Your task to perform on an android device: open app "Walmart Shopping & Grocery" Image 0: 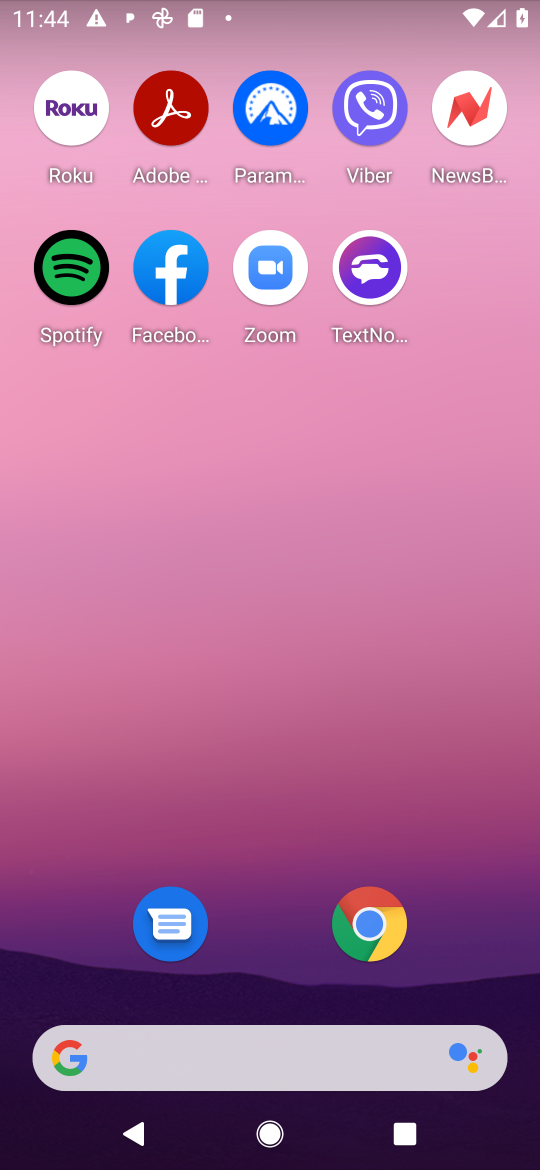
Step 0: press home button
Your task to perform on an android device: open app "Walmart Shopping & Grocery" Image 1: 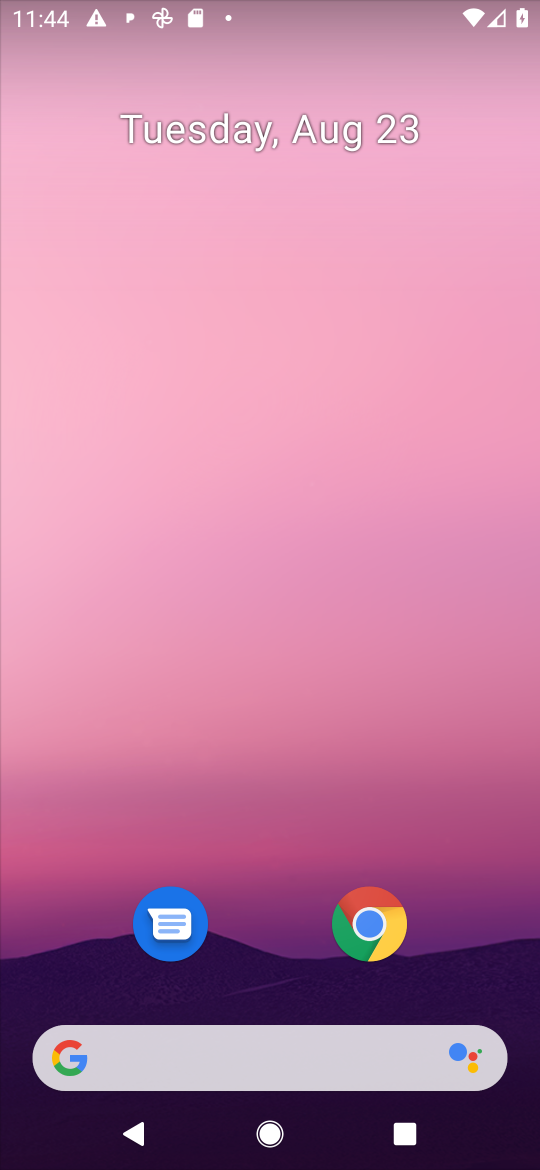
Step 1: drag from (473, 983) to (523, 564)
Your task to perform on an android device: open app "Walmart Shopping & Grocery" Image 2: 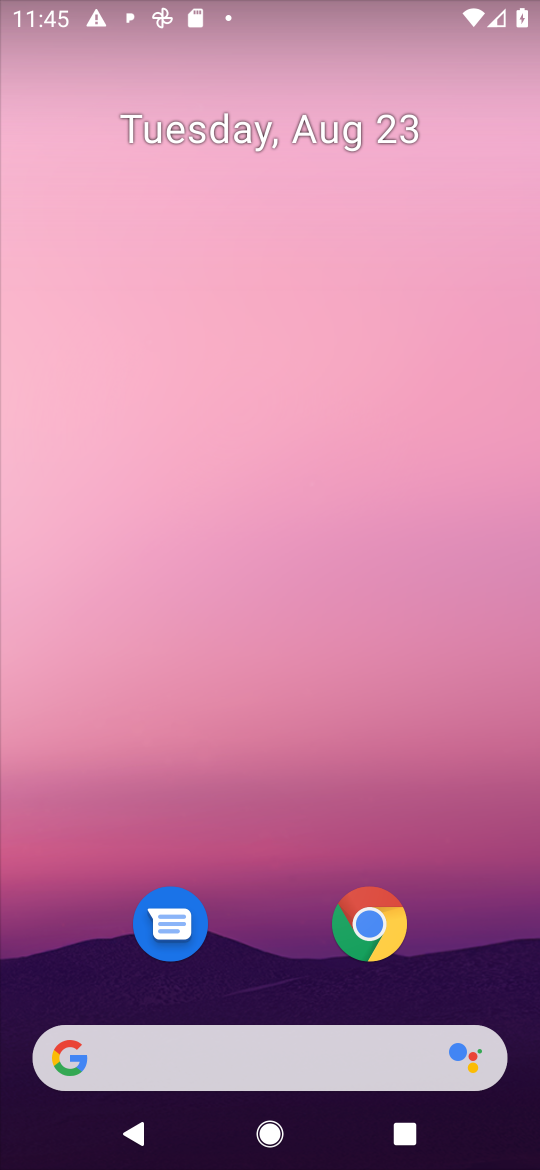
Step 2: drag from (470, 904) to (467, 93)
Your task to perform on an android device: open app "Walmart Shopping & Grocery" Image 3: 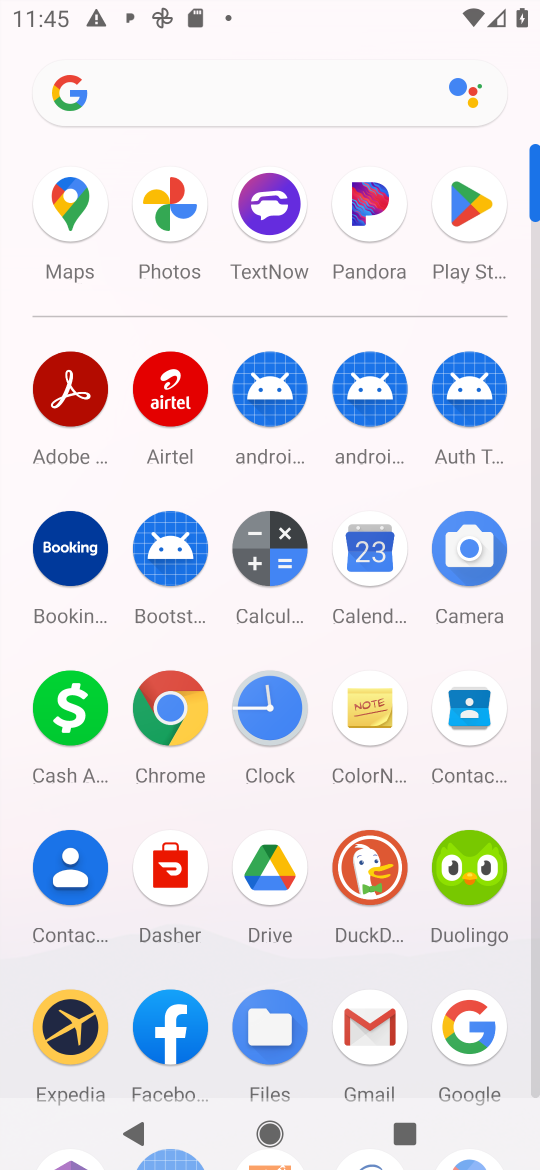
Step 3: click (443, 194)
Your task to perform on an android device: open app "Walmart Shopping & Grocery" Image 4: 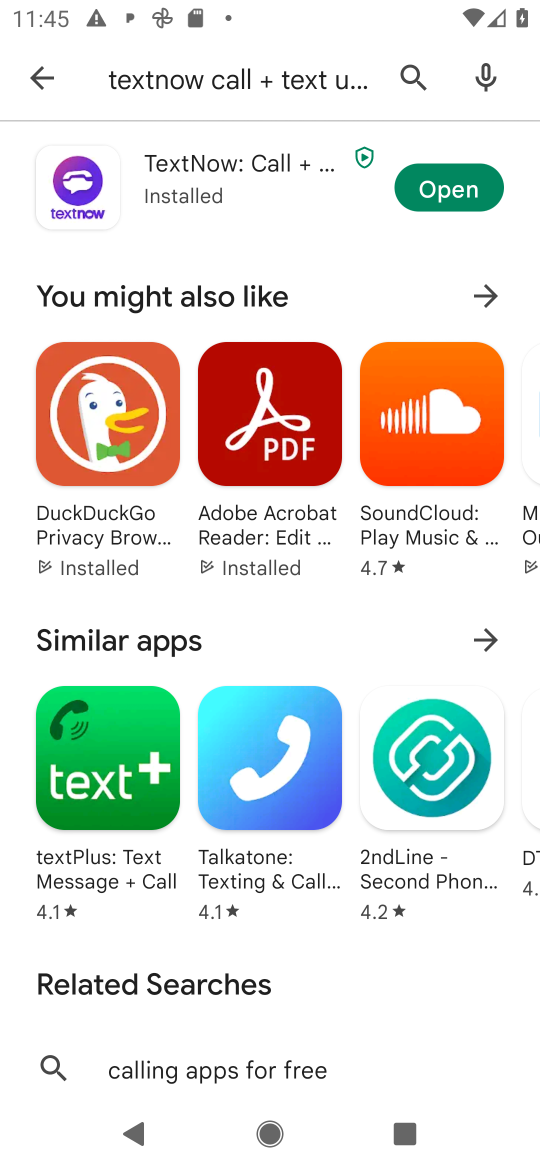
Step 4: press back button
Your task to perform on an android device: open app "Walmart Shopping & Grocery" Image 5: 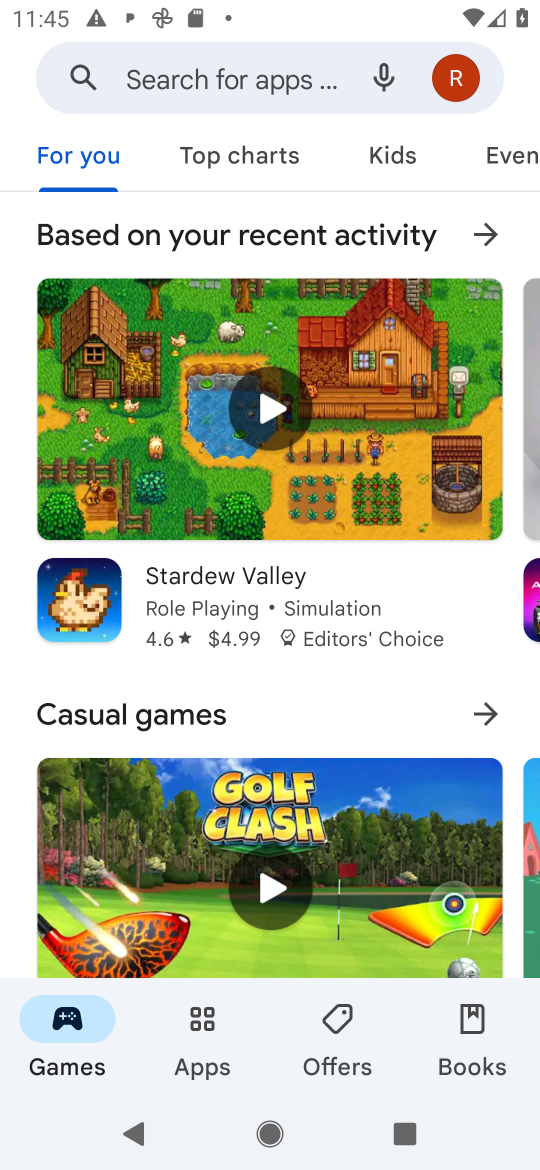
Step 5: click (250, 75)
Your task to perform on an android device: open app "Walmart Shopping & Grocery" Image 6: 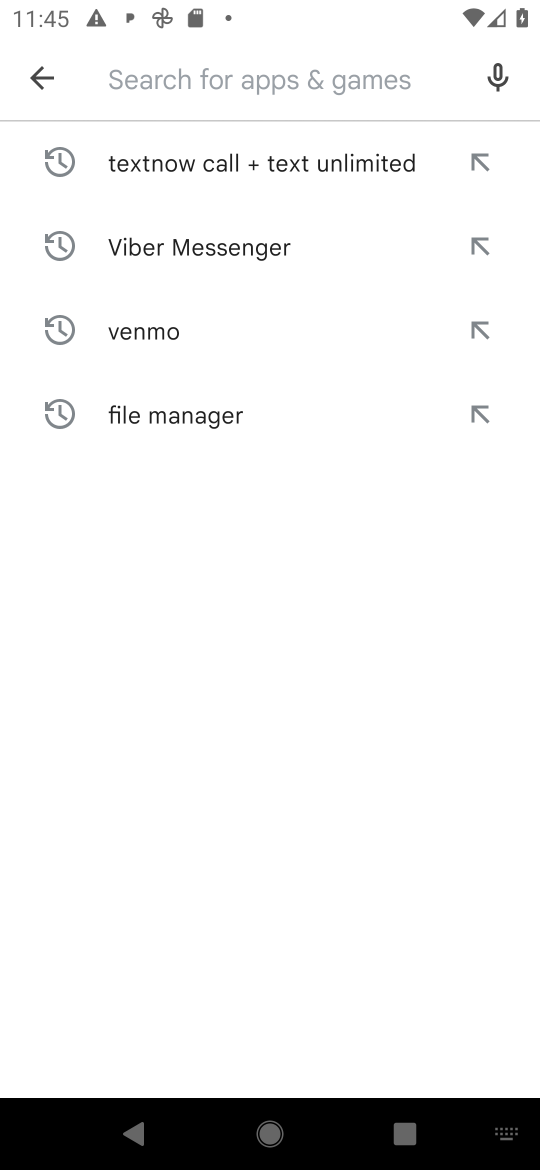
Step 6: type "Walmart Shopping & Grocery"
Your task to perform on an android device: open app "Walmart Shopping & Grocery" Image 7: 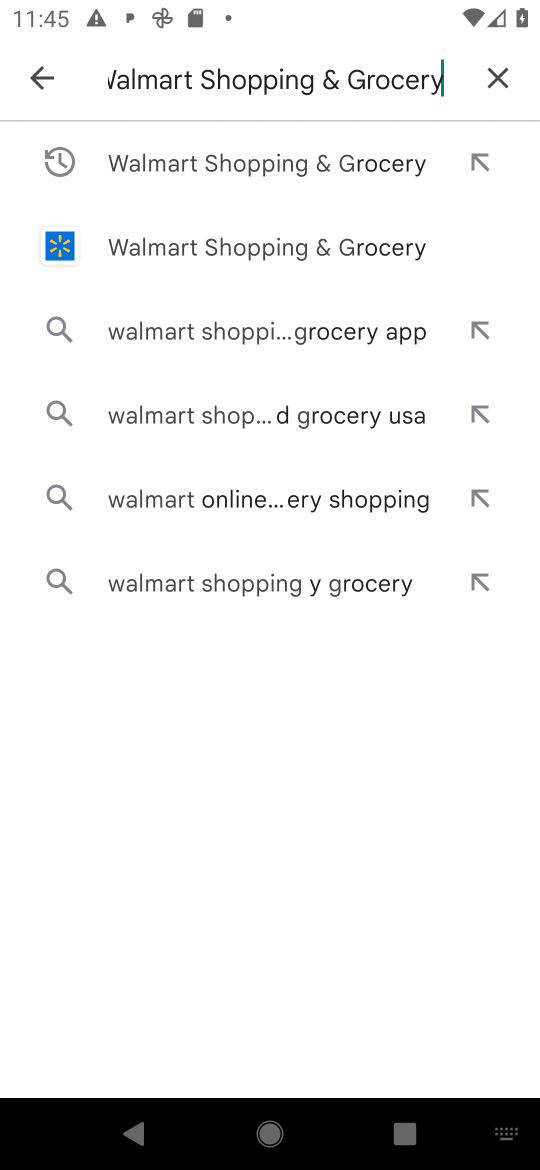
Step 7: press enter
Your task to perform on an android device: open app "Walmart Shopping & Grocery" Image 8: 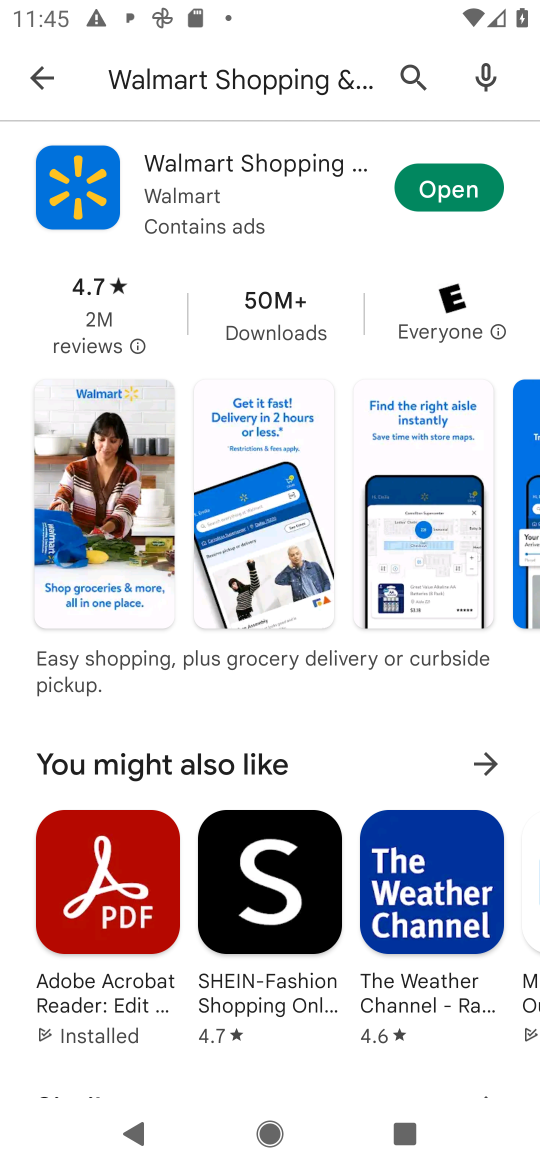
Step 8: click (468, 179)
Your task to perform on an android device: open app "Walmart Shopping & Grocery" Image 9: 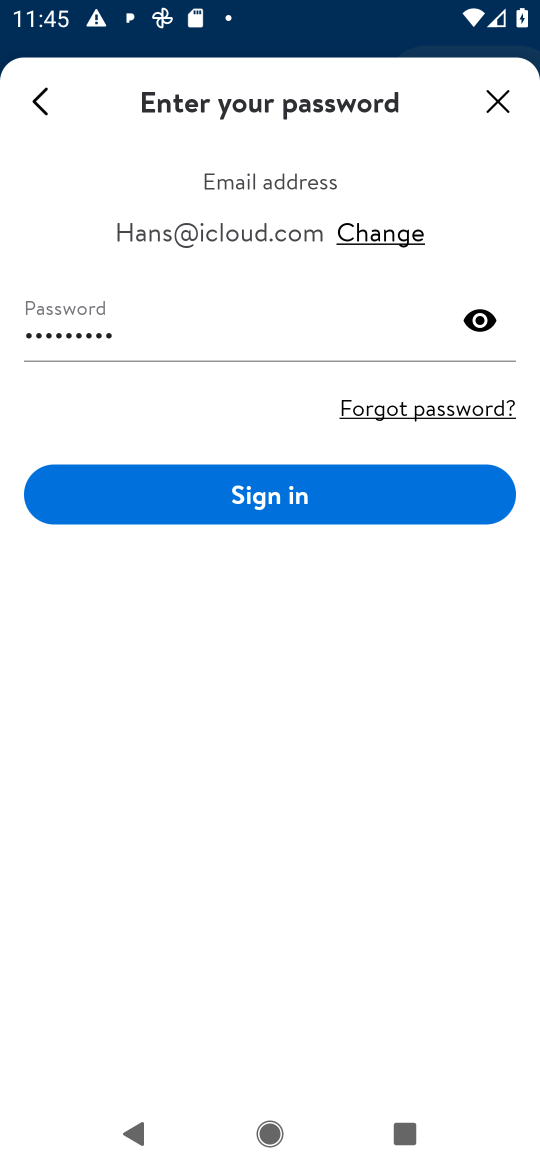
Step 9: task complete